Your task to perform on an android device: Check the news Image 0: 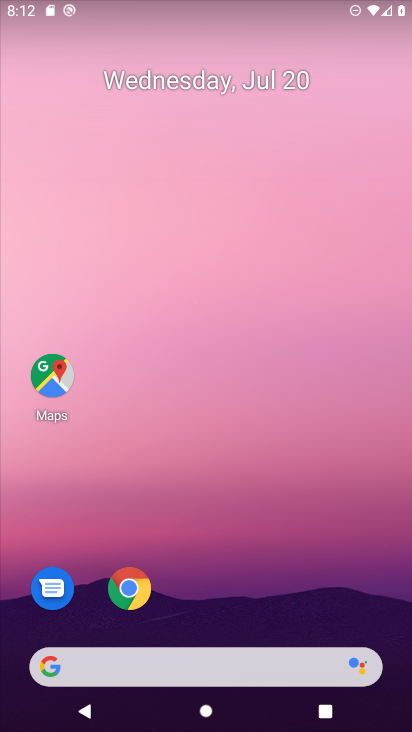
Step 0: click (140, 663)
Your task to perform on an android device: Check the news Image 1: 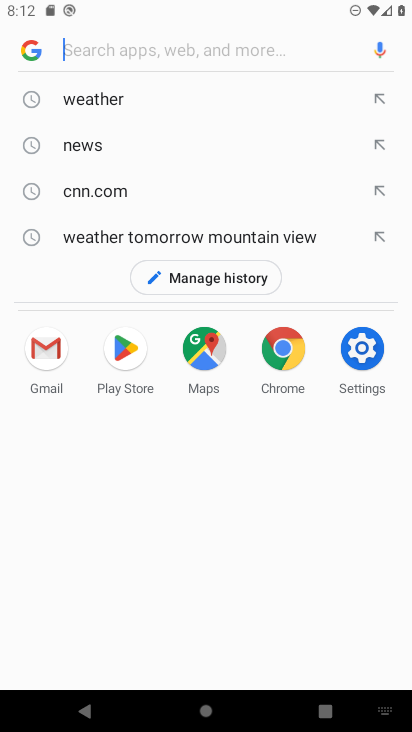
Step 1: click (94, 148)
Your task to perform on an android device: Check the news Image 2: 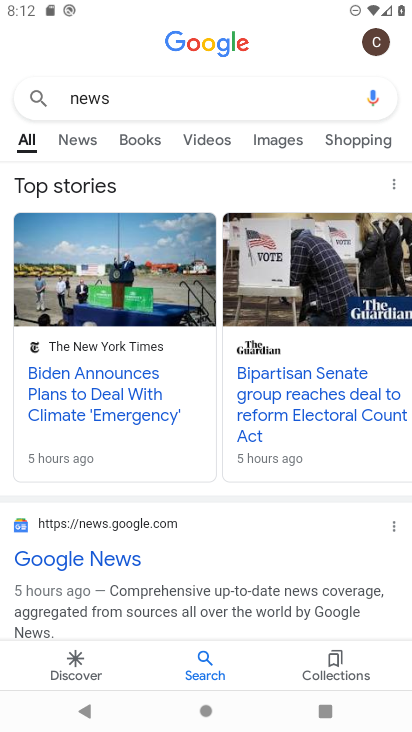
Step 2: task complete